Your task to perform on an android device: Go to Wikipedia Image 0: 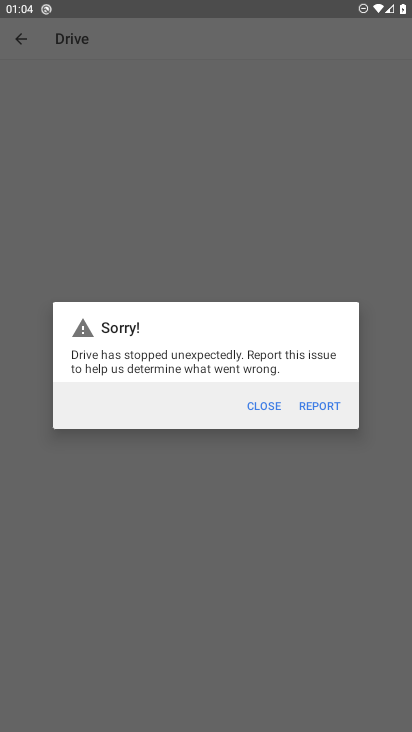
Step 0: press home button
Your task to perform on an android device: Go to Wikipedia Image 1: 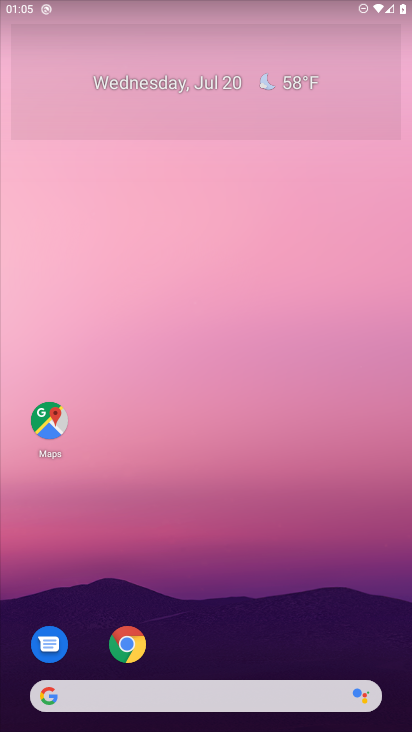
Step 1: click (108, 693)
Your task to perform on an android device: Go to Wikipedia Image 2: 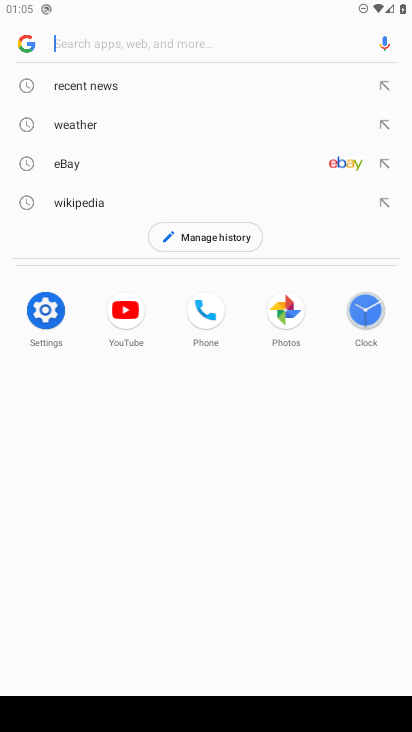
Step 2: type "Wikipedia"
Your task to perform on an android device: Go to Wikipedia Image 3: 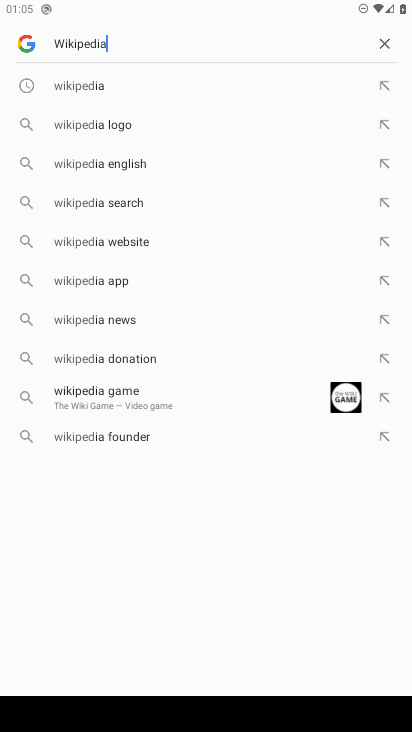
Step 3: type ""
Your task to perform on an android device: Go to Wikipedia Image 4: 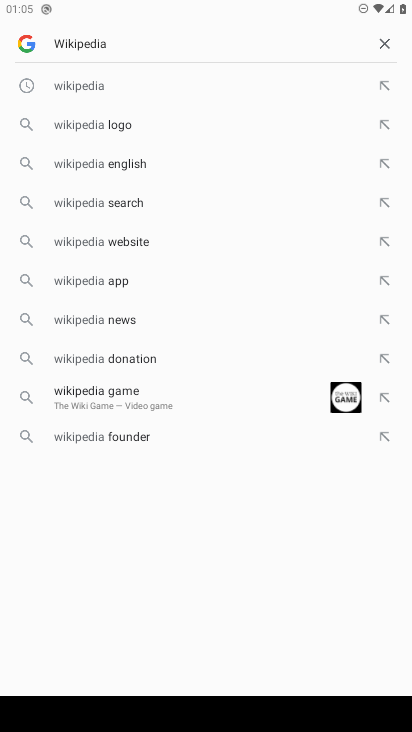
Step 4: type ""
Your task to perform on an android device: Go to Wikipedia Image 5: 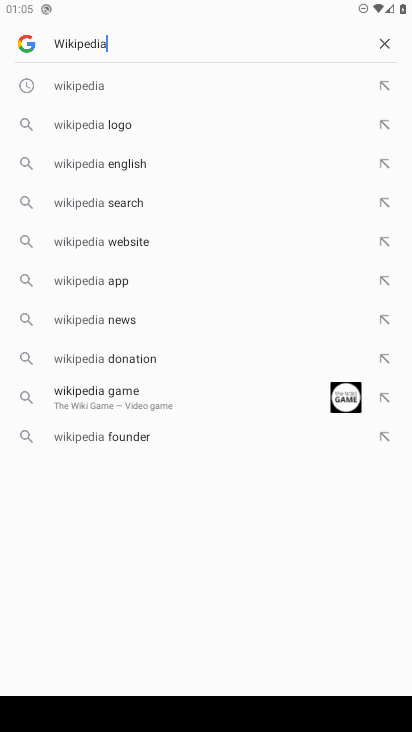
Step 5: click (58, 86)
Your task to perform on an android device: Go to Wikipedia Image 6: 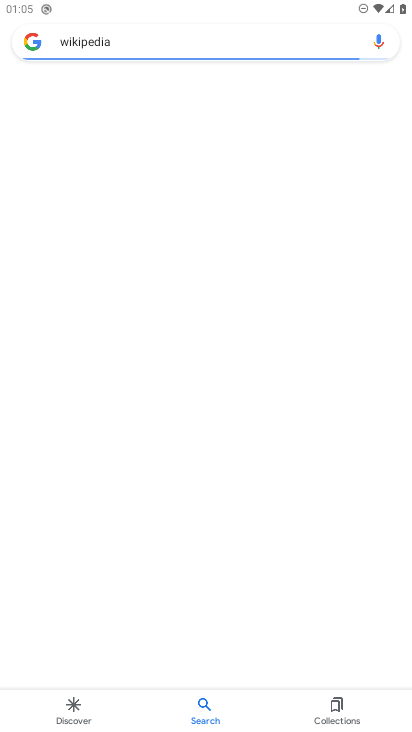
Step 6: task complete